Your task to perform on an android device: Open network settings Image 0: 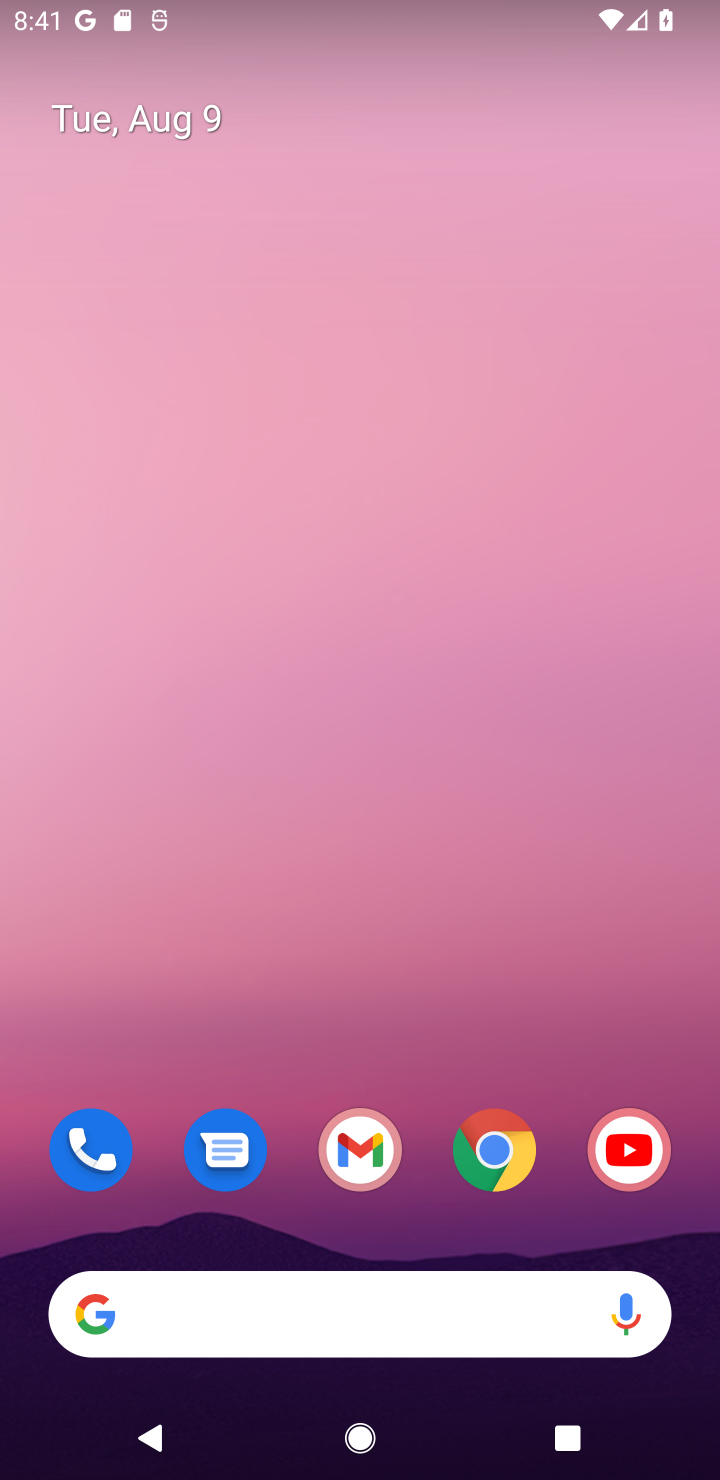
Step 0: drag from (336, 906) to (367, 515)
Your task to perform on an android device: Open network settings Image 1: 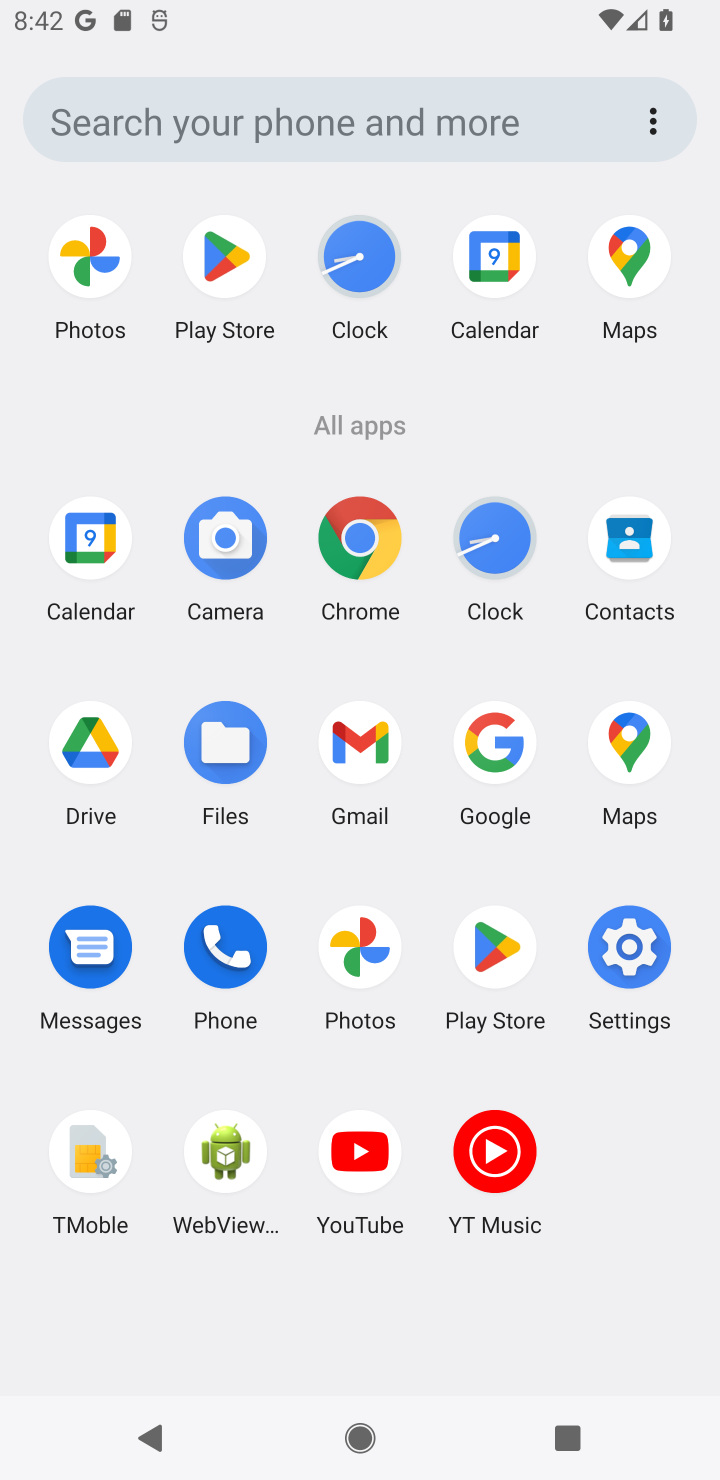
Step 1: click (596, 988)
Your task to perform on an android device: Open network settings Image 2: 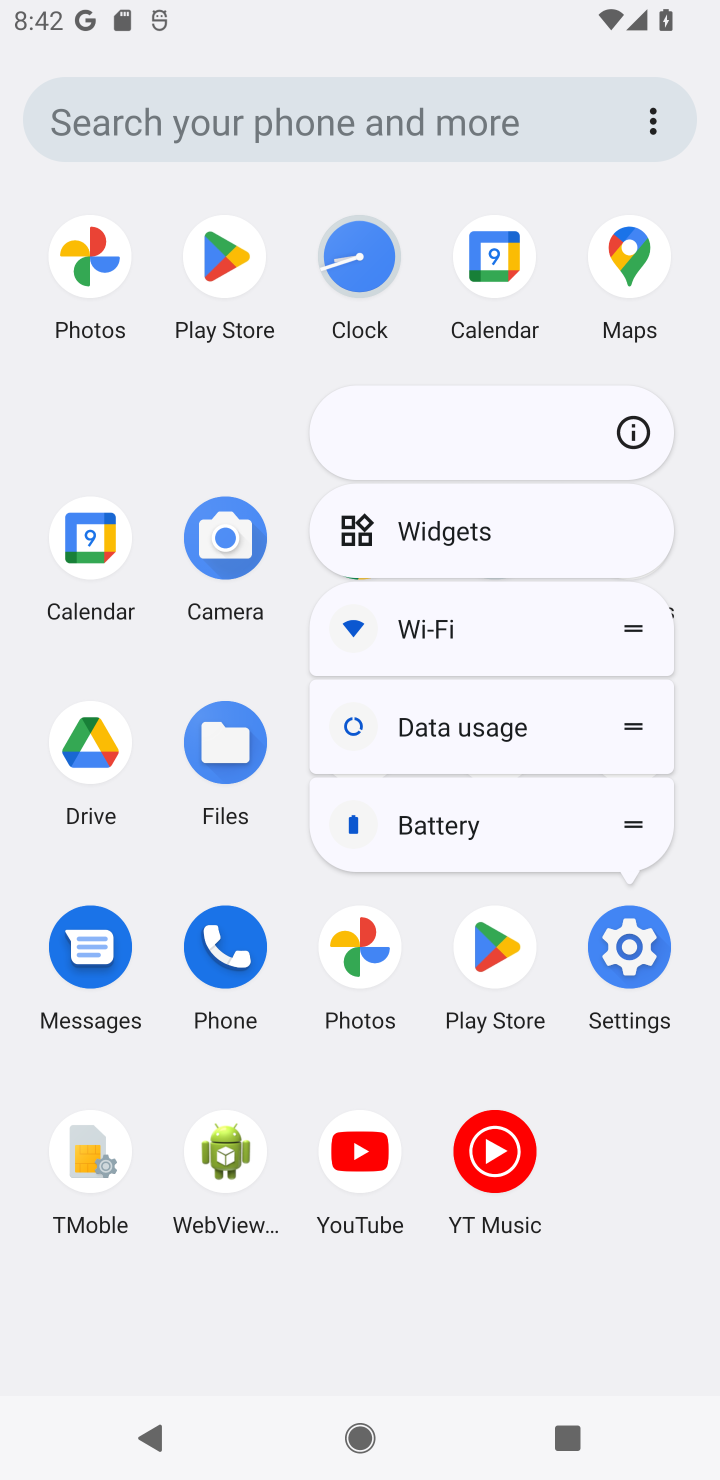
Step 2: click (630, 985)
Your task to perform on an android device: Open network settings Image 3: 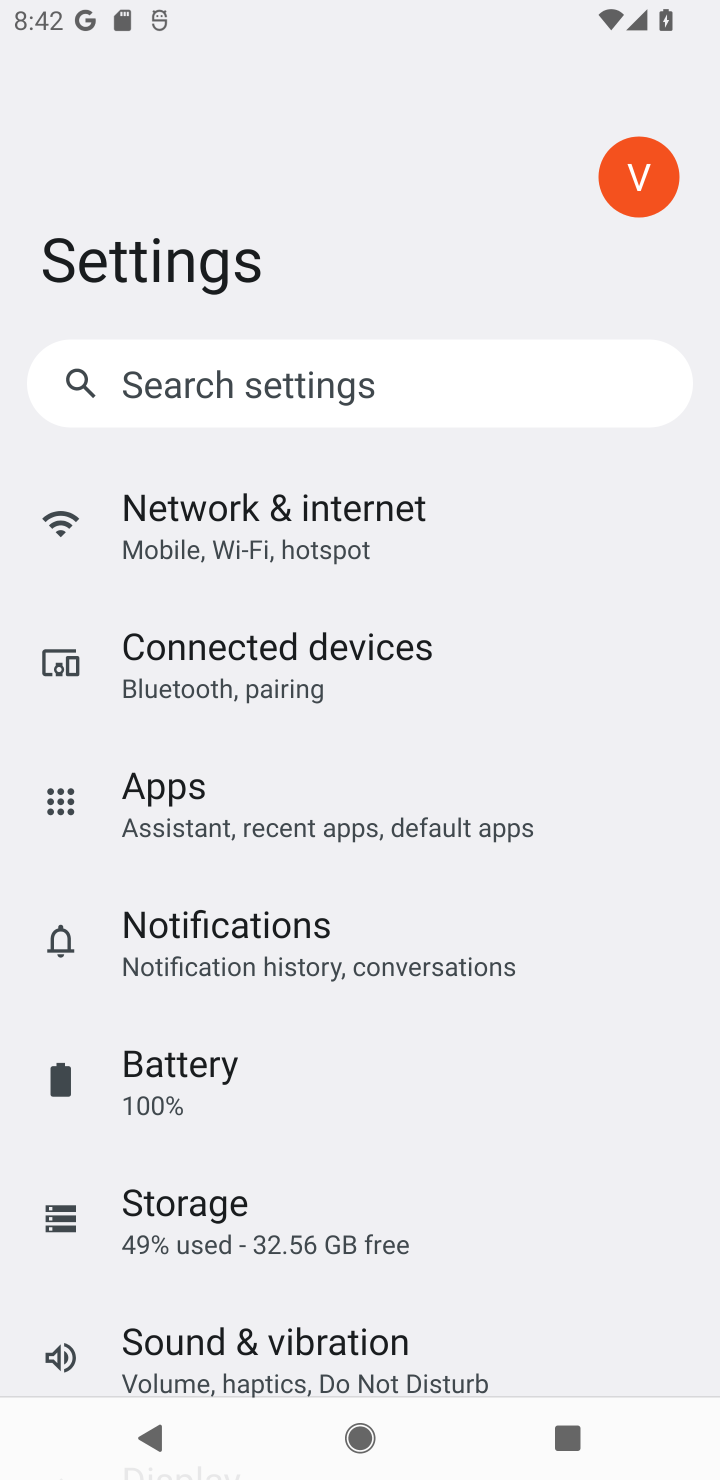
Step 3: click (240, 549)
Your task to perform on an android device: Open network settings Image 4: 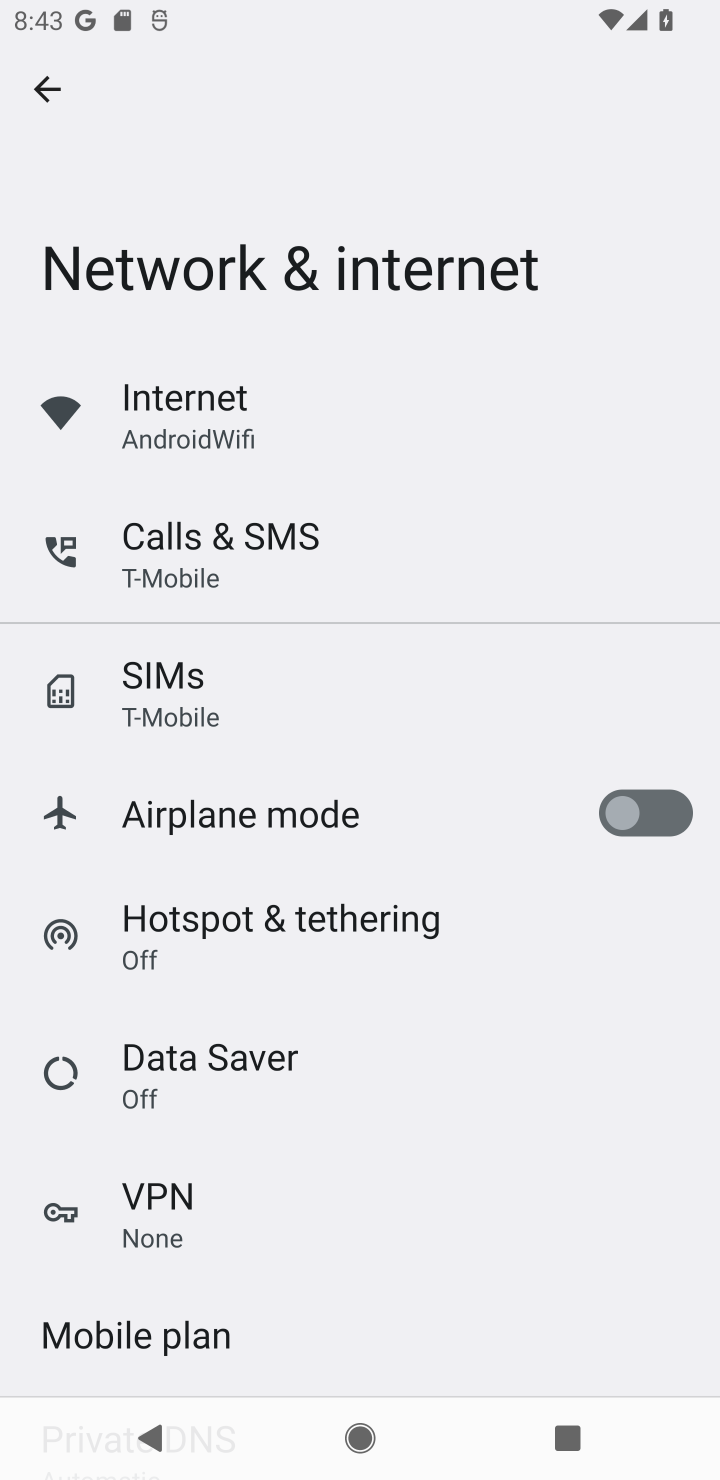
Step 4: task complete